Your task to perform on an android device: check android version Image 0: 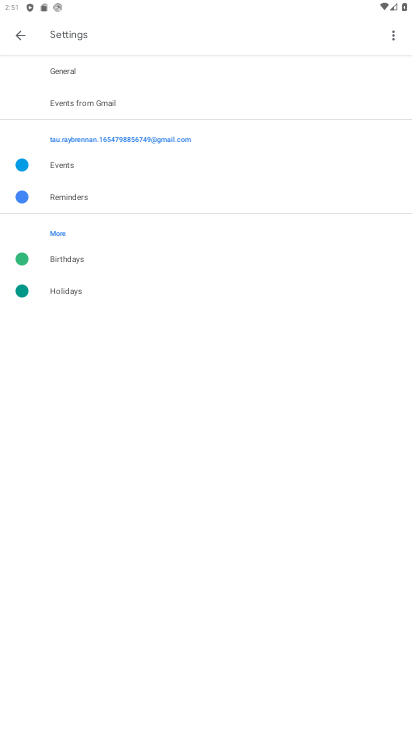
Step 0: press home button
Your task to perform on an android device: check android version Image 1: 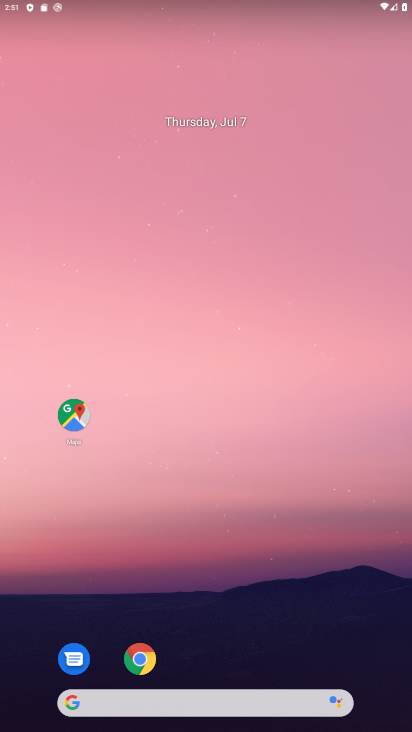
Step 1: drag from (259, 639) to (176, 264)
Your task to perform on an android device: check android version Image 2: 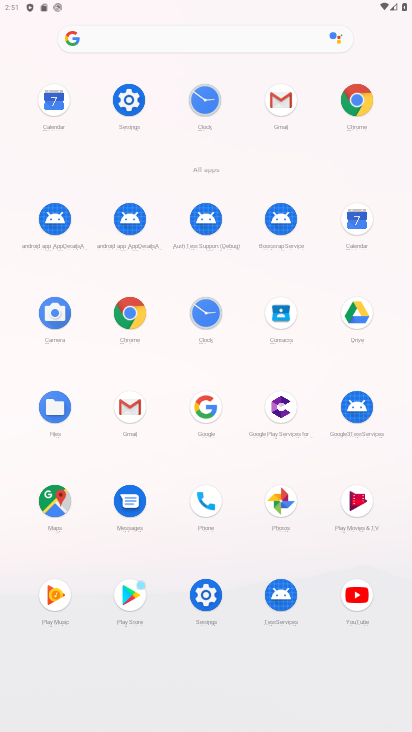
Step 2: click (121, 100)
Your task to perform on an android device: check android version Image 3: 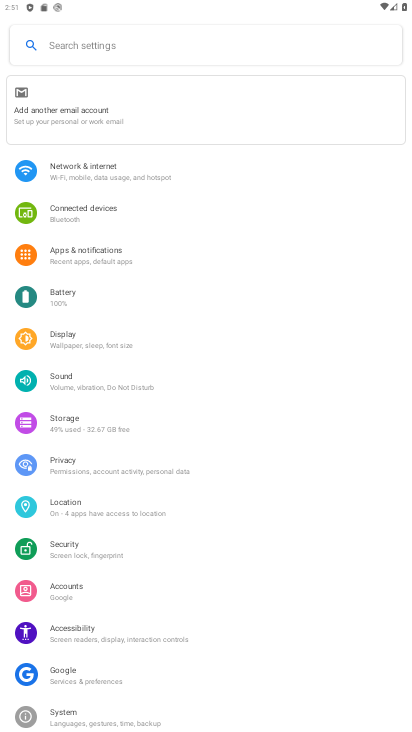
Step 3: drag from (215, 707) to (156, 414)
Your task to perform on an android device: check android version Image 4: 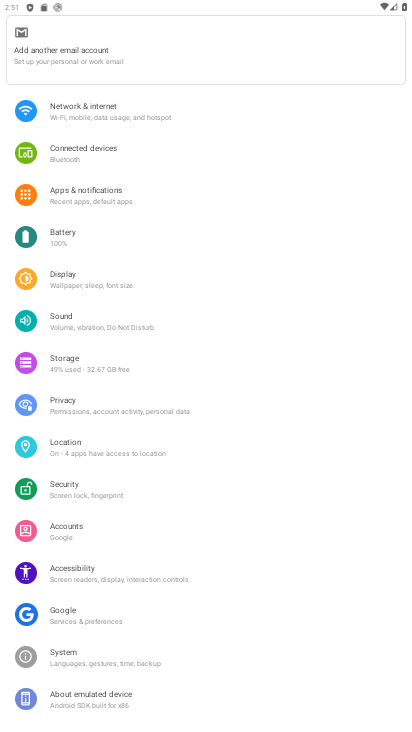
Step 4: click (163, 690)
Your task to perform on an android device: check android version Image 5: 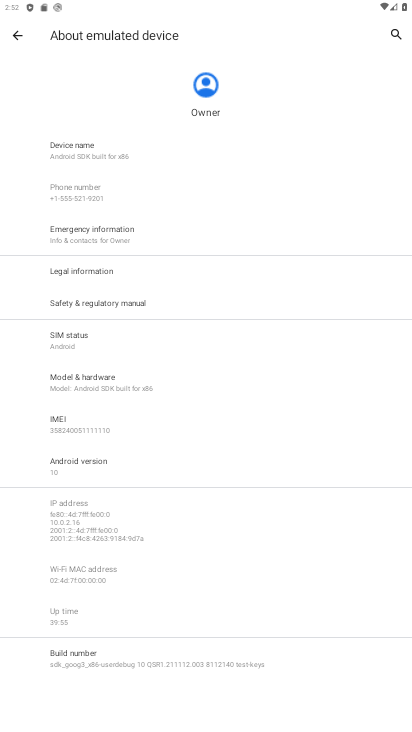
Step 5: click (165, 460)
Your task to perform on an android device: check android version Image 6: 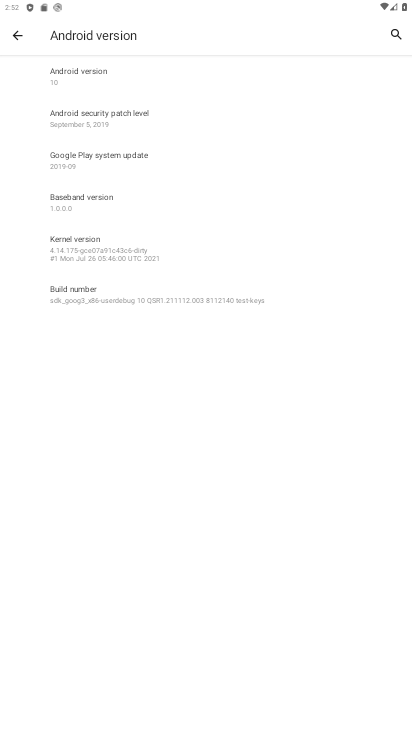
Step 6: task complete